Your task to perform on an android device: turn notification dots off Image 0: 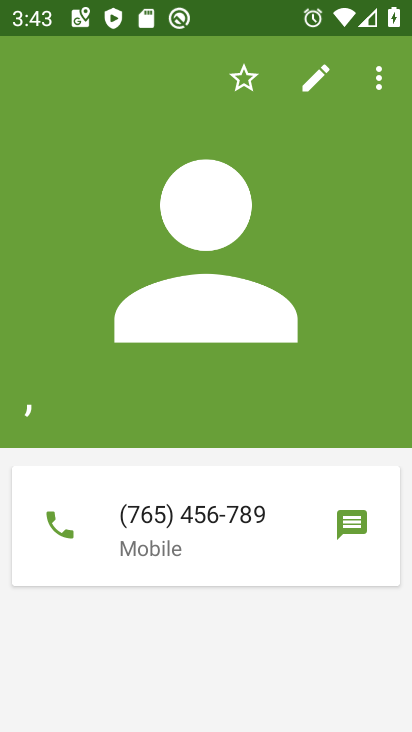
Step 0: press home button
Your task to perform on an android device: turn notification dots off Image 1: 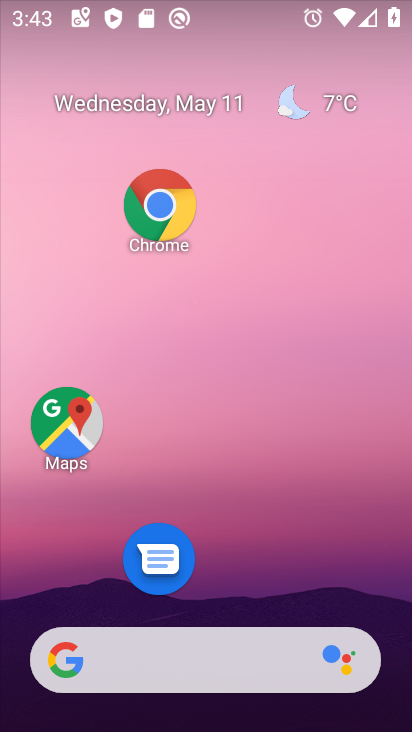
Step 1: drag from (239, 629) to (242, 246)
Your task to perform on an android device: turn notification dots off Image 2: 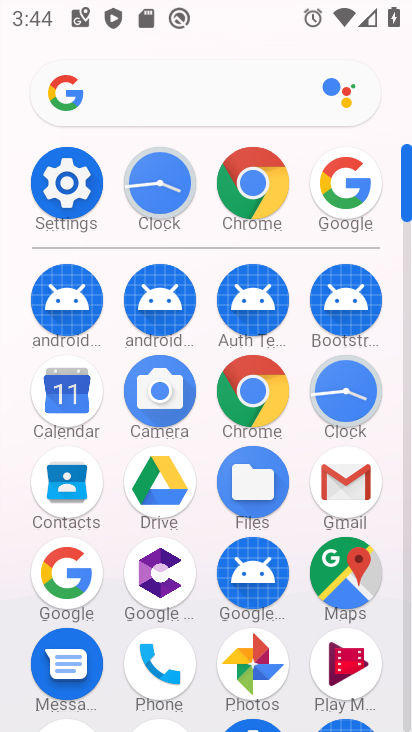
Step 2: click (59, 183)
Your task to perform on an android device: turn notification dots off Image 3: 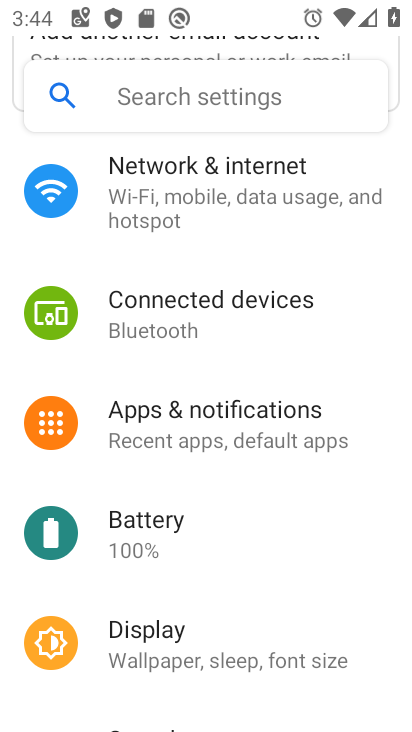
Step 3: click (180, 413)
Your task to perform on an android device: turn notification dots off Image 4: 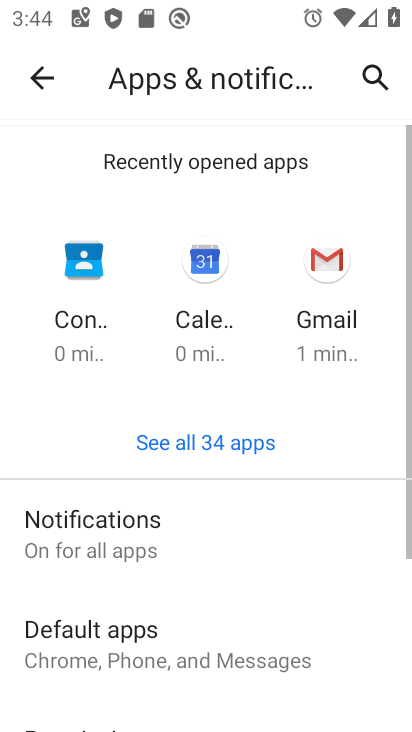
Step 4: drag from (161, 687) to (174, 396)
Your task to perform on an android device: turn notification dots off Image 5: 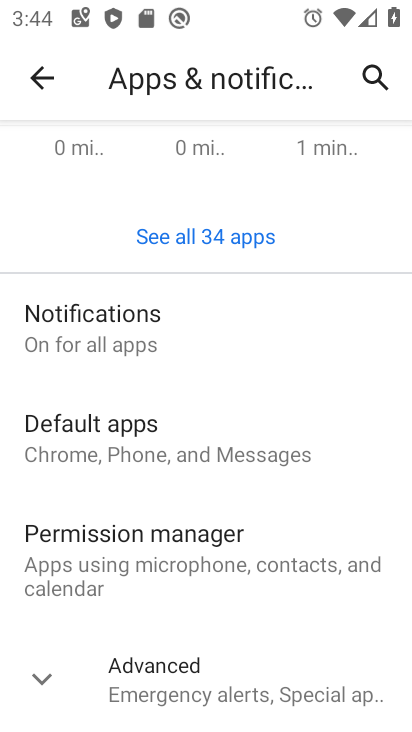
Step 5: click (152, 695)
Your task to perform on an android device: turn notification dots off Image 6: 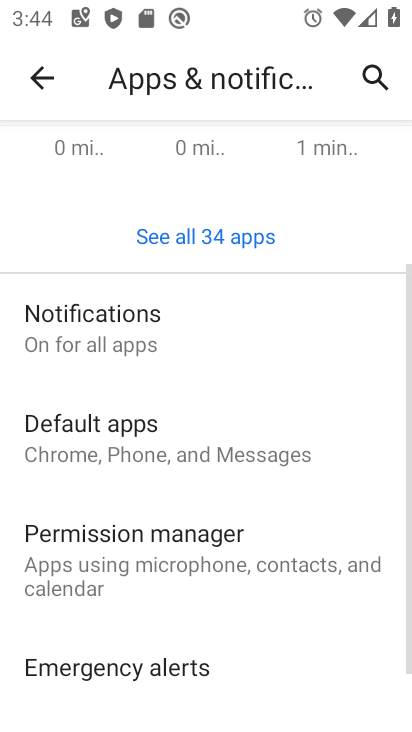
Step 6: click (96, 324)
Your task to perform on an android device: turn notification dots off Image 7: 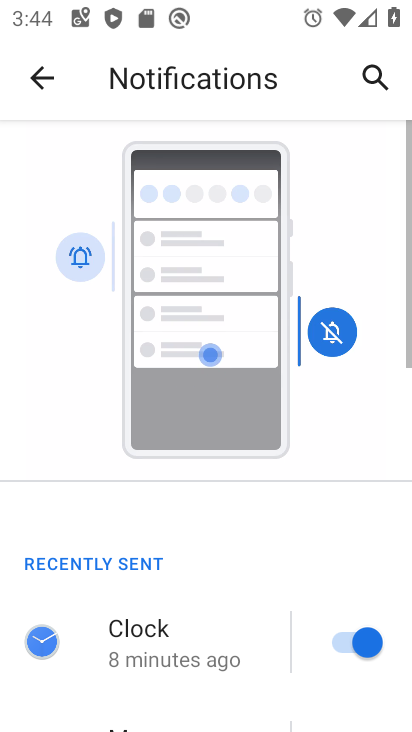
Step 7: drag from (201, 697) to (209, 275)
Your task to perform on an android device: turn notification dots off Image 8: 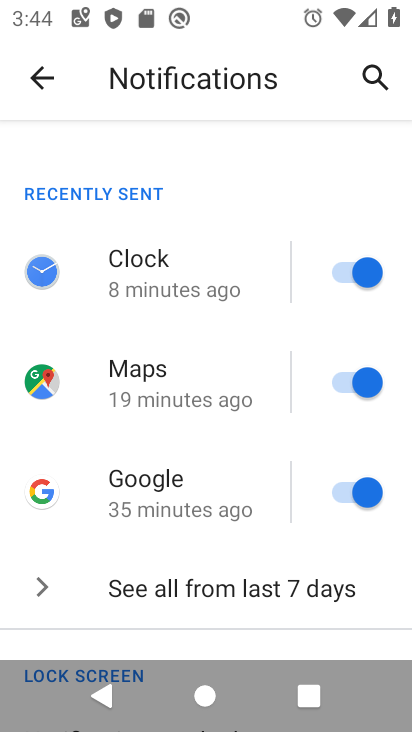
Step 8: drag from (210, 632) to (210, 320)
Your task to perform on an android device: turn notification dots off Image 9: 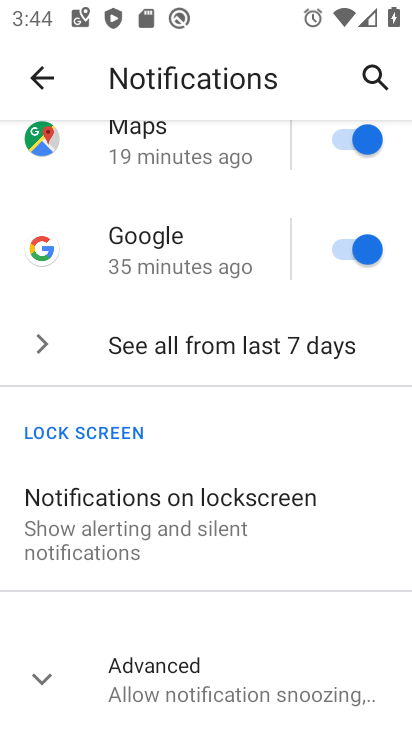
Step 9: click (220, 704)
Your task to perform on an android device: turn notification dots off Image 10: 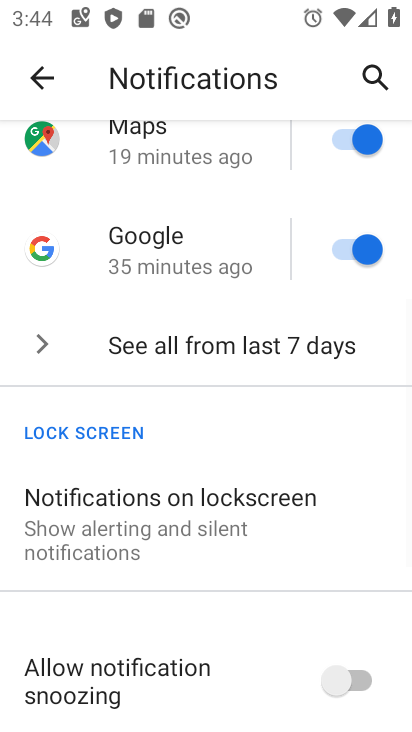
Step 10: click (223, 400)
Your task to perform on an android device: turn notification dots off Image 11: 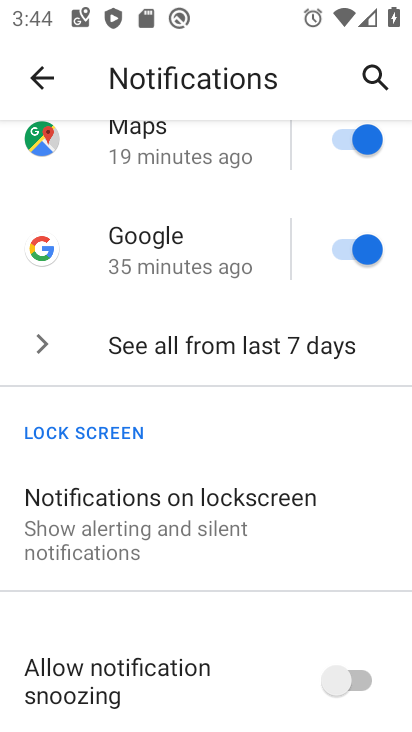
Step 11: task complete